Your task to perform on an android device: change the clock style Image 0: 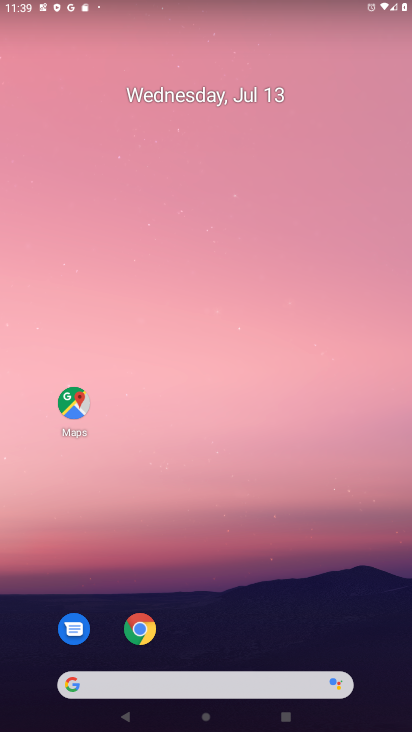
Step 0: drag from (223, 628) to (241, 178)
Your task to perform on an android device: change the clock style Image 1: 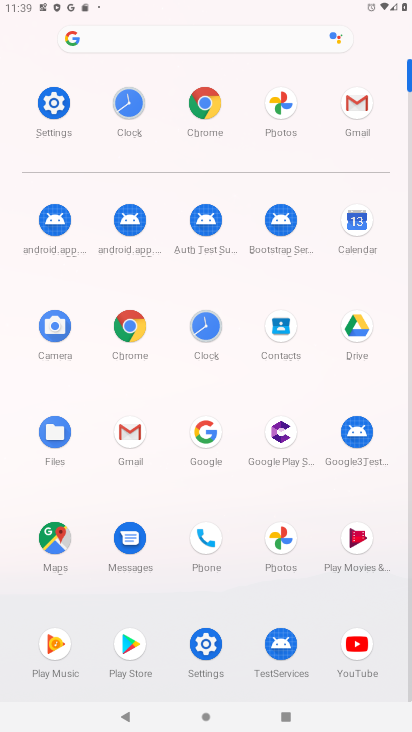
Step 1: click (148, 128)
Your task to perform on an android device: change the clock style Image 2: 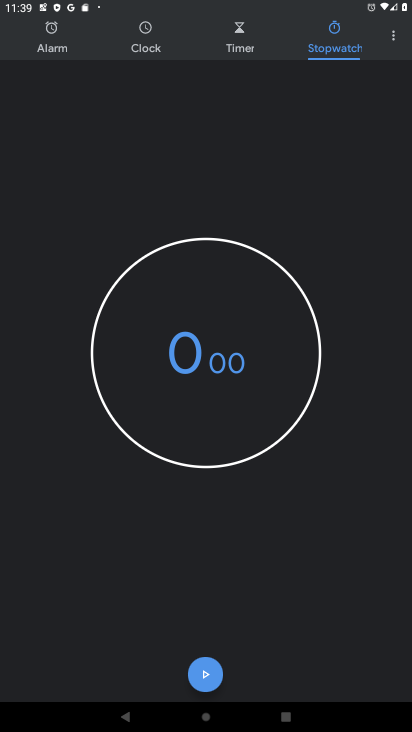
Step 2: click (396, 50)
Your task to perform on an android device: change the clock style Image 3: 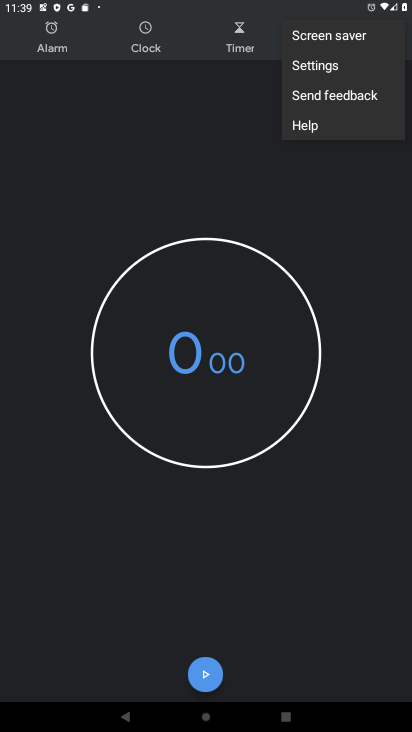
Step 3: click (340, 74)
Your task to perform on an android device: change the clock style Image 4: 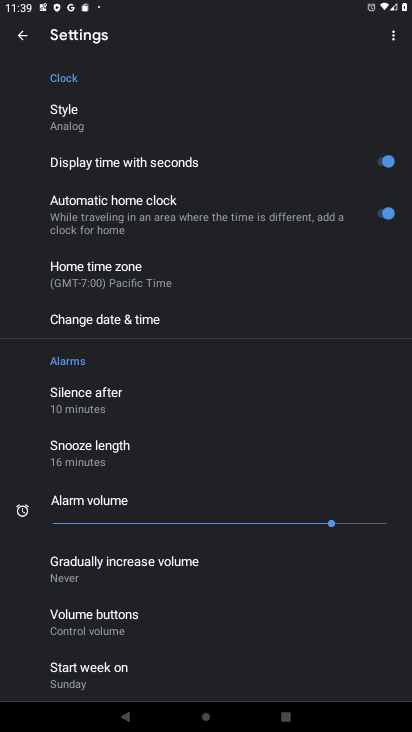
Step 4: click (198, 118)
Your task to perform on an android device: change the clock style Image 5: 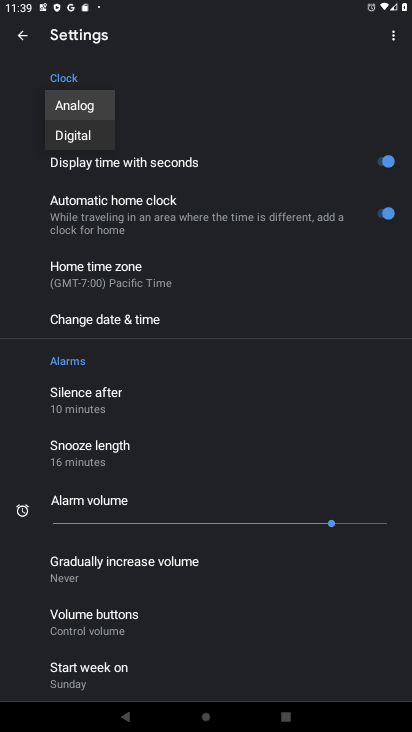
Step 5: click (103, 133)
Your task to perform on an android device: change the clock style Image 6: 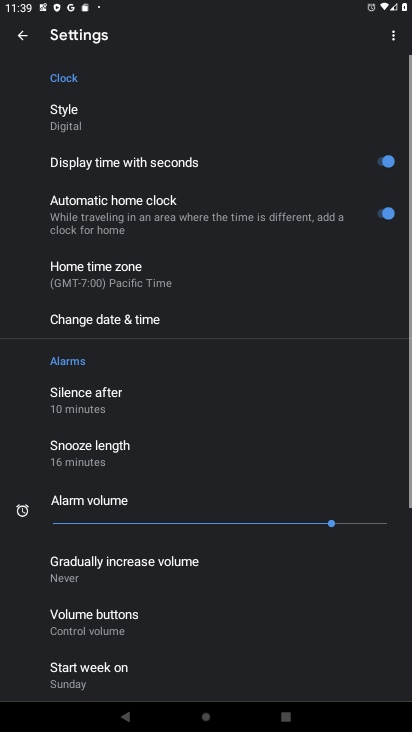
Step 6: task complete